Your task to perform on an android device: uninstall "Google Play Games" Image 0: 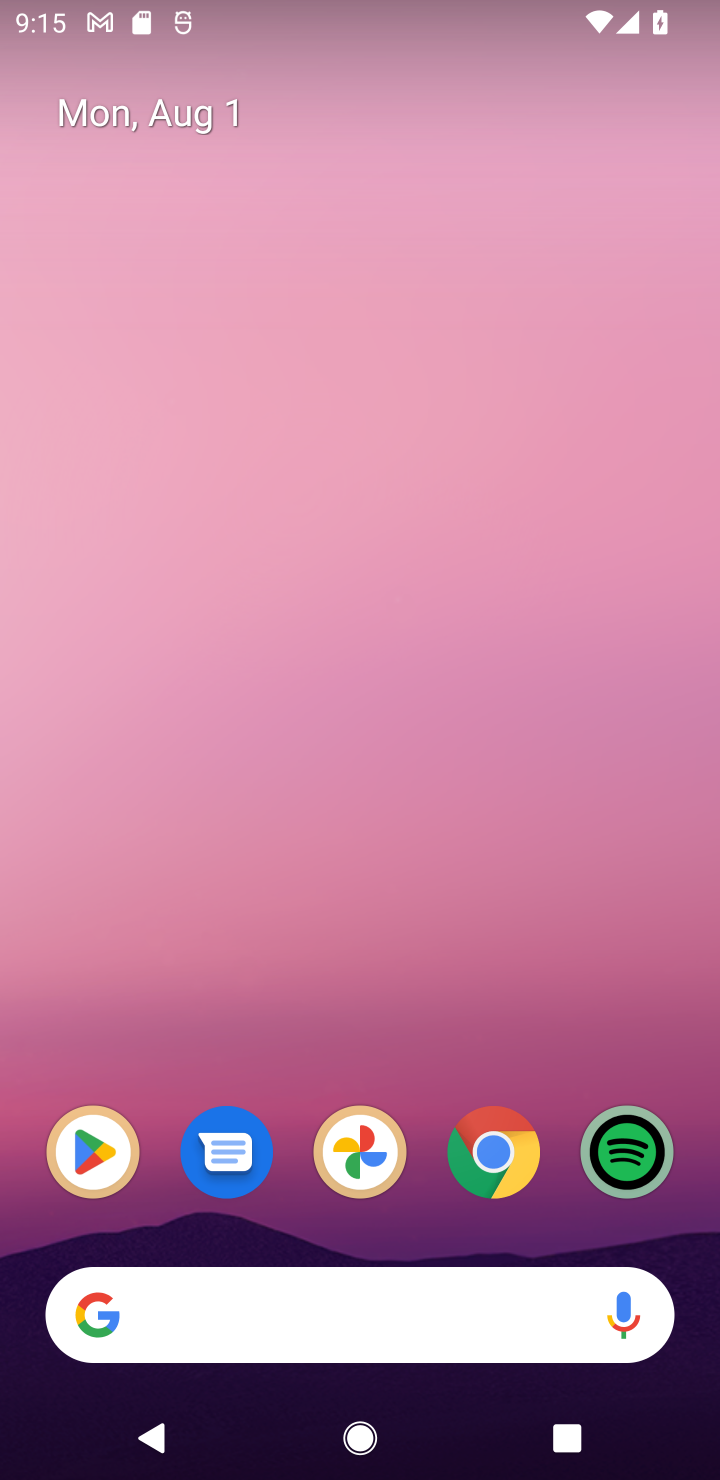
Step 0: drag from (334, 1279) to (335, 0)
Your task to perform on an android device: uninstall "Google Play Games" Image 1: 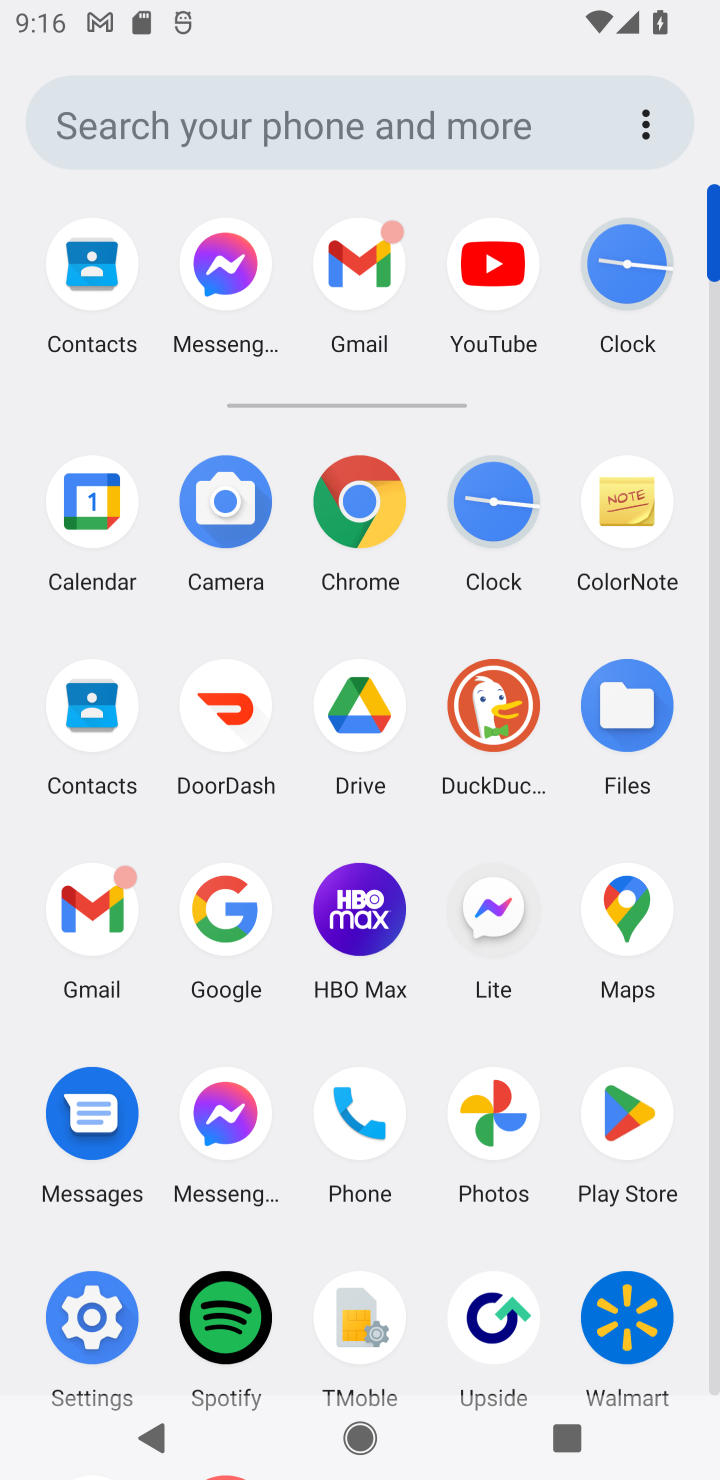
Step 1: click (610, 1111)
Your task to perform on an android device: uninstall "Google Play Games" Image 2: 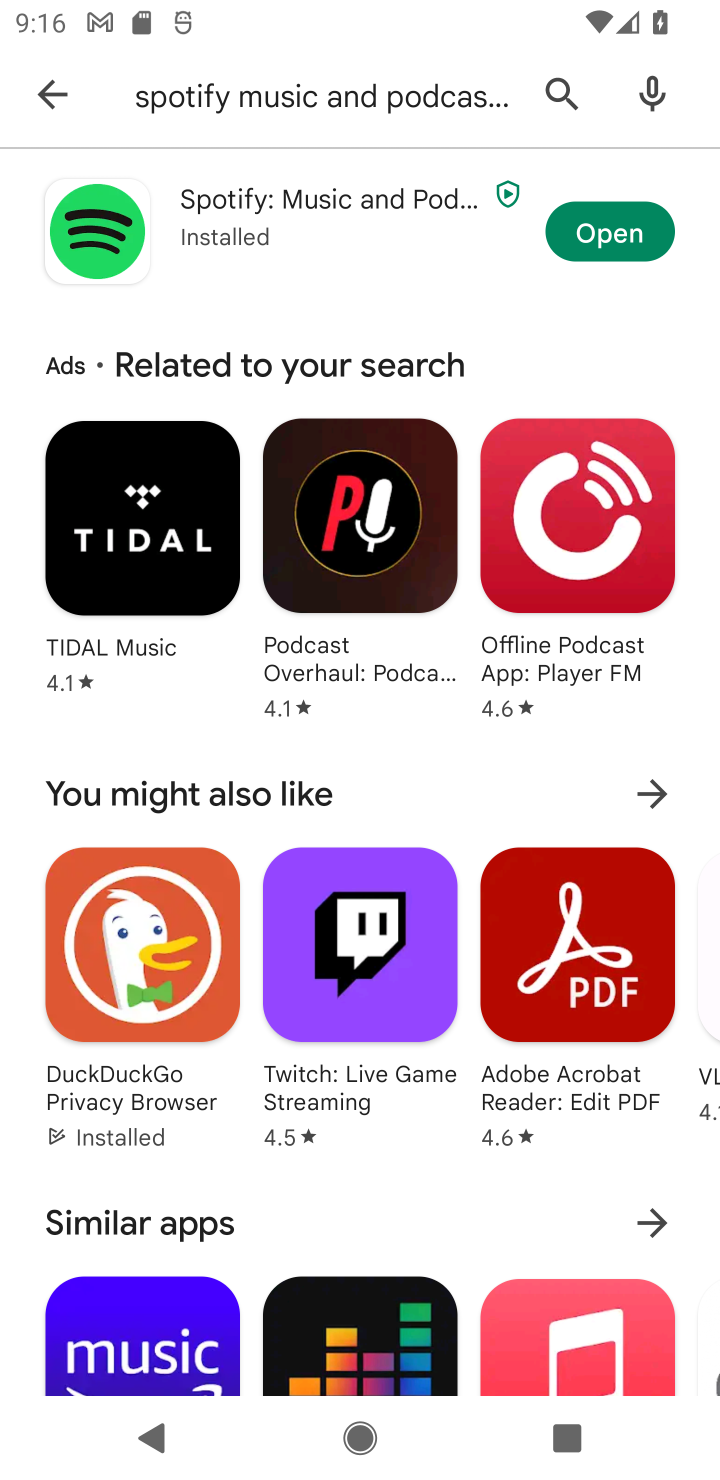
Step 2: click (58, 90)
Your task to perform on an android device: uninstall "Google Play Games" Image 3: 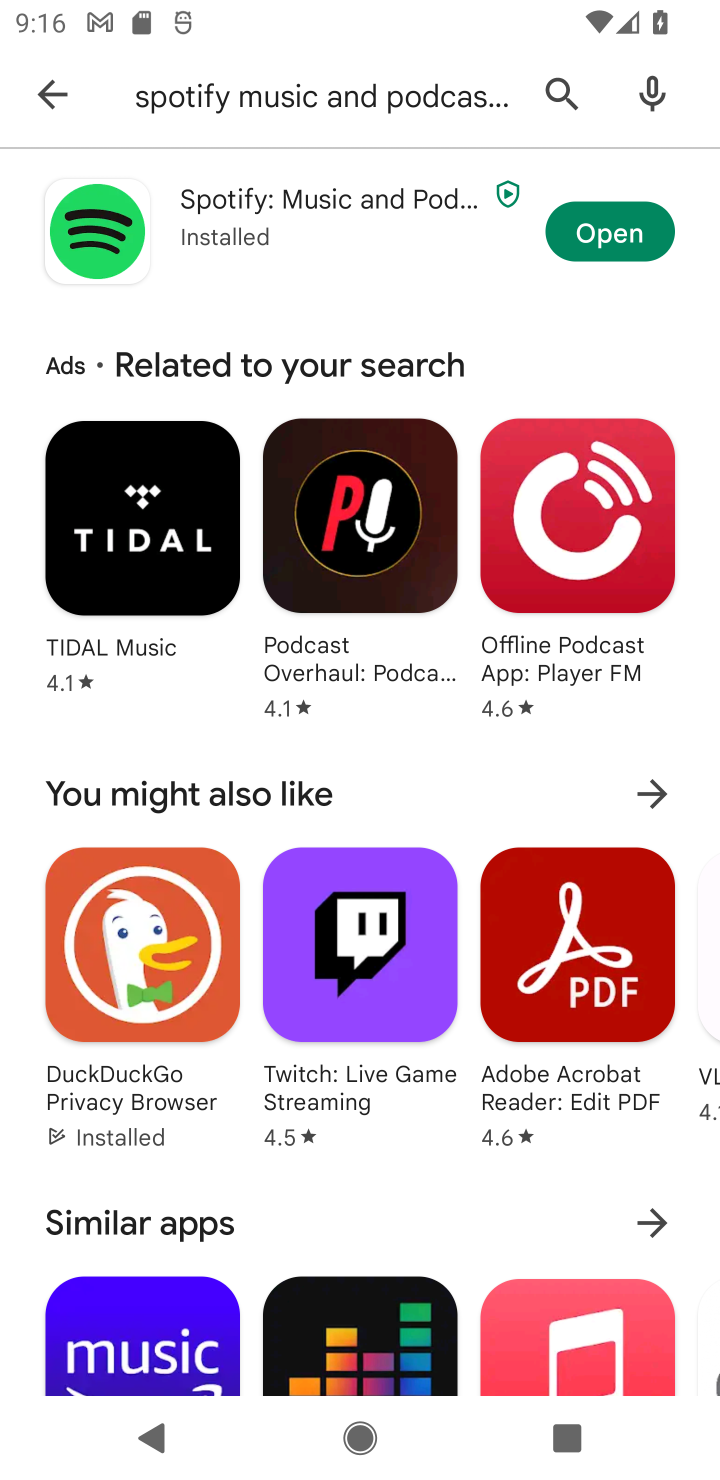
Step 3: click (52, 89)
Your task to perform on an android device: uninstall "Google Play Games" Image 4: 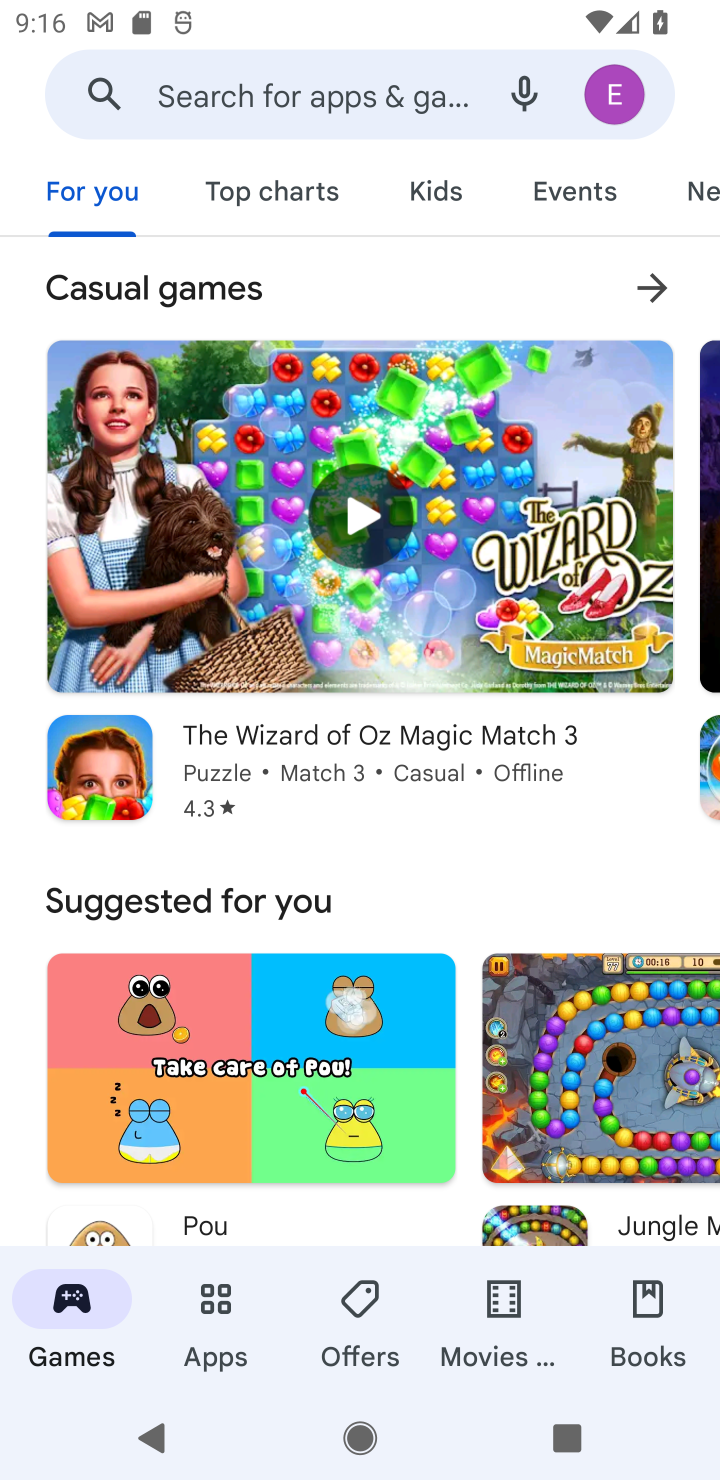
Step 4: click (162, 101)
Your task to perform on an android device: uninstall "Google Play Games" Image 5: 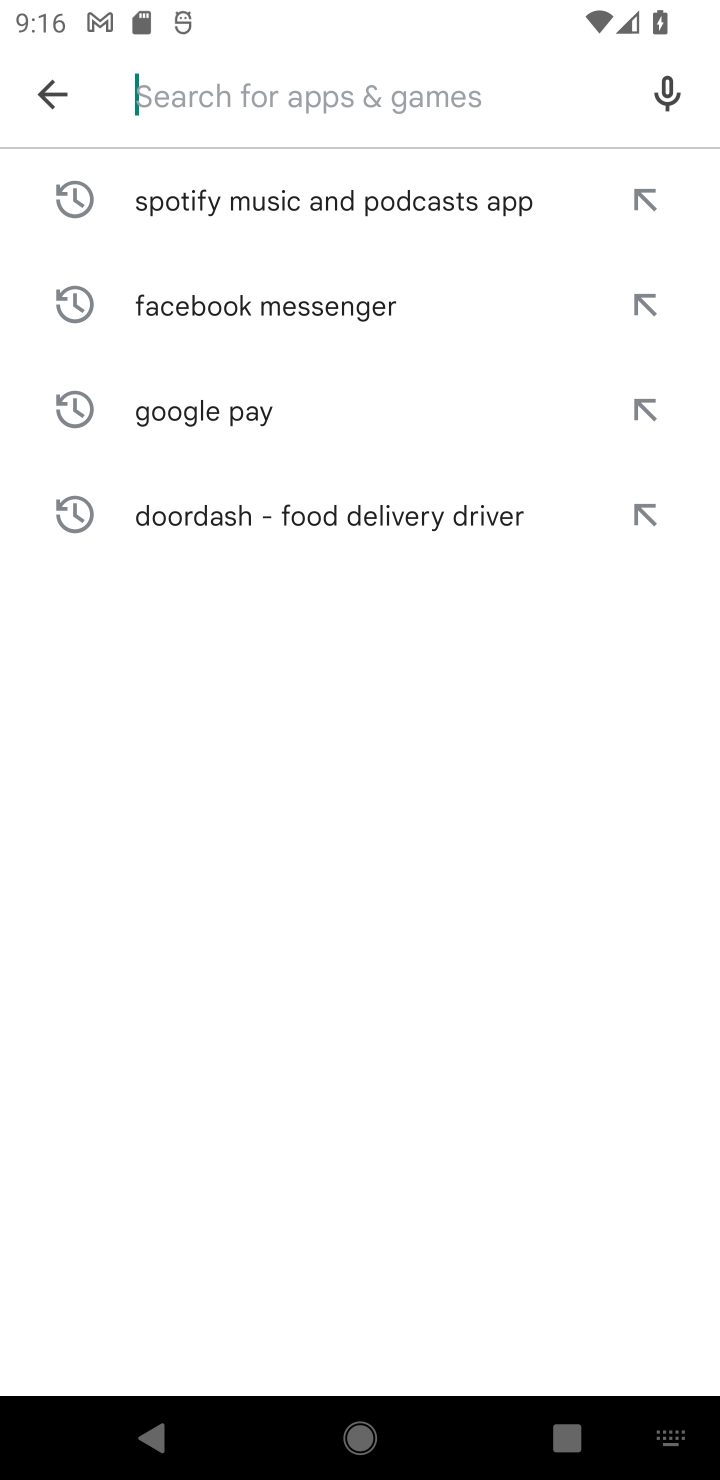
Step 5: type "Google Play Games"
Your task to perform on an android device: uninstall "Google Play Games" Image 6: 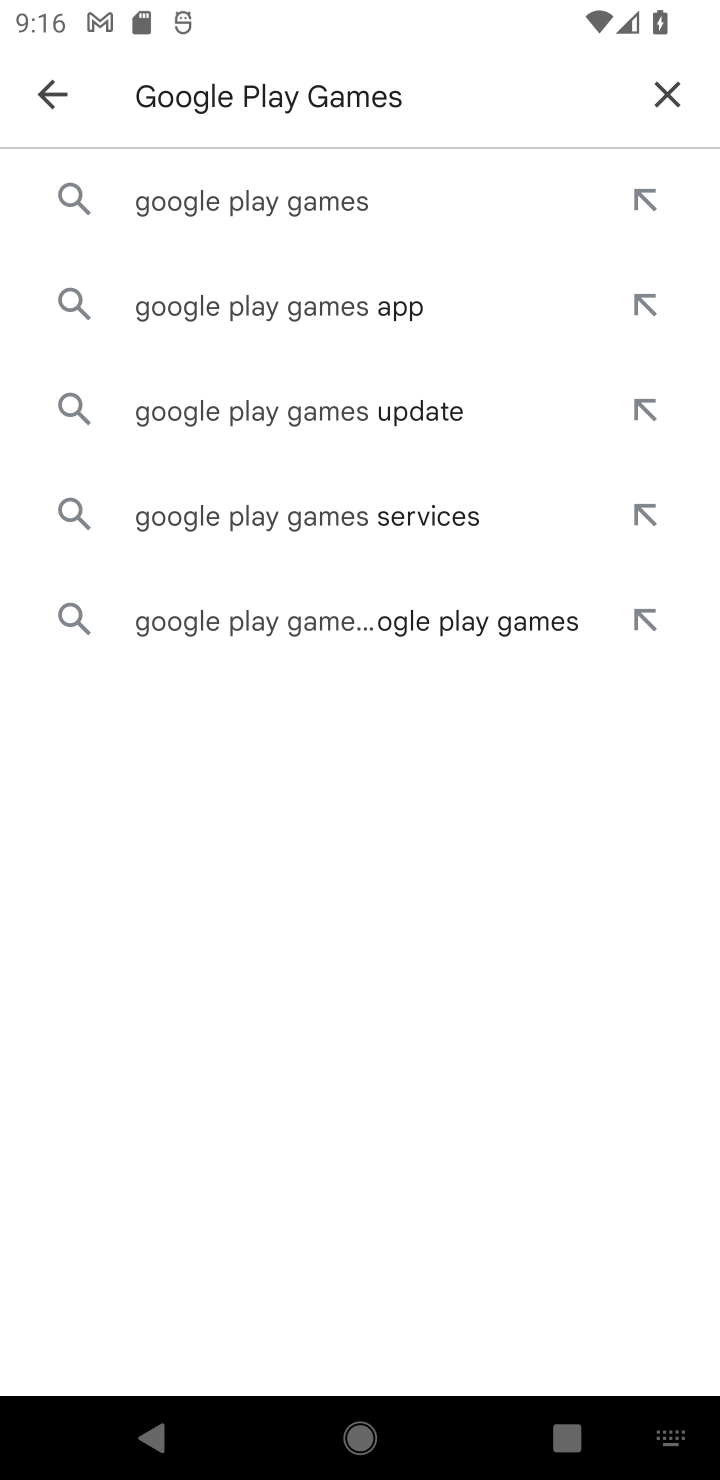
Step 6: click (353, 224)
Your task to perform on an android device: uninstall "Google Play Games" Image 7: 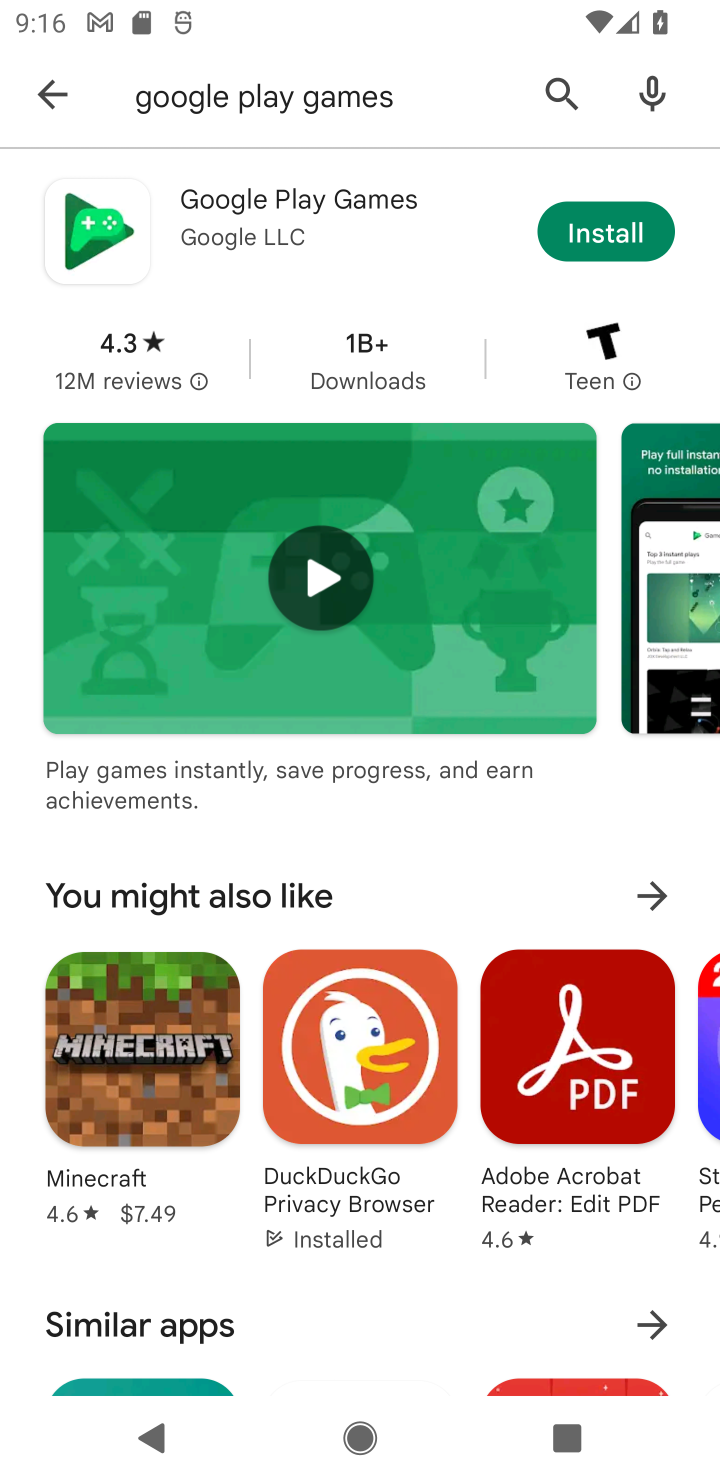
Step 7: task complete